Your task to perform on an android device: turn on location history Image 0: 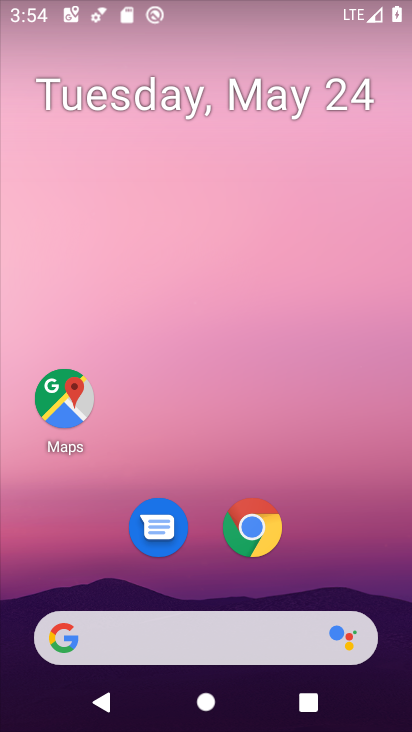
Step 0: click (65, 398)
Your task to perform on an android device: turn on location history Image 1: 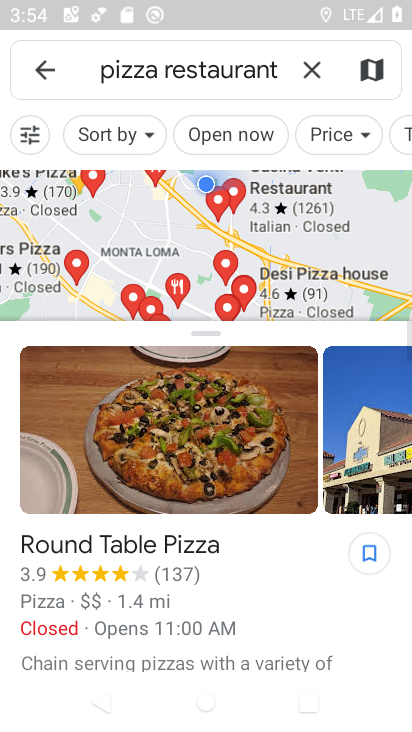
Step 1: click (313, 72)
Your task to perform on an android device: turn on location history Image 2: 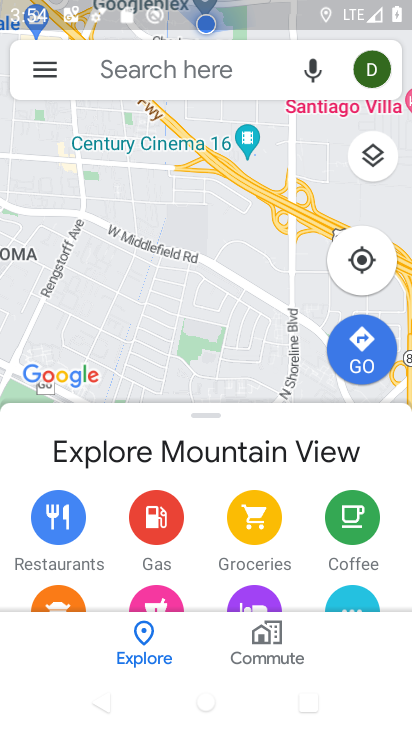
Step 2: click (46, 75)
Your task to perform on an android device: turn on location history Image 3: 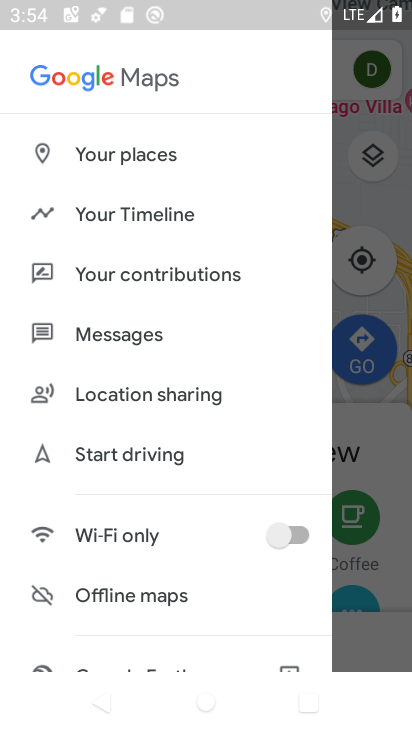
Step 3: click (145, 218)
Your task to perform on an android device: turn on location history Image 4: 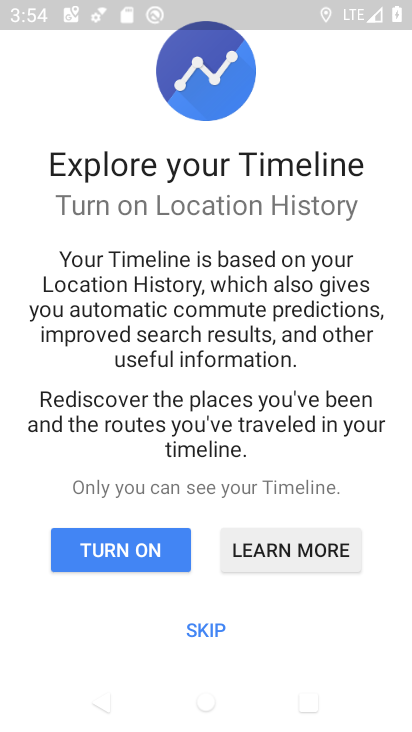
Step 4: click (197, 627)
Your task to perform on an android device: turn on location history Image 5: 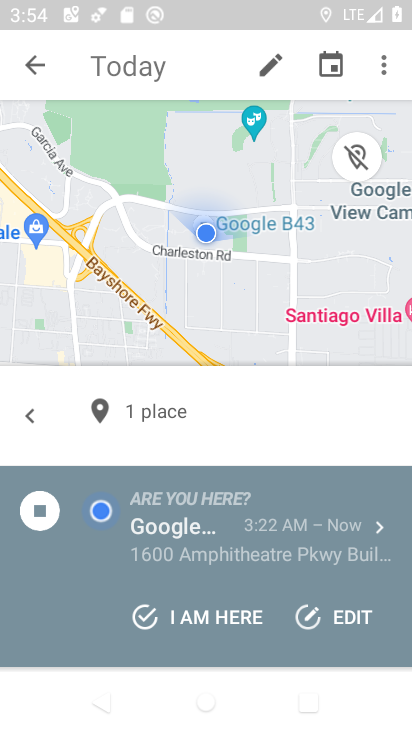
Step 5: click (382, 62)
Your task to perform on an android device: turn on location history Image 6: 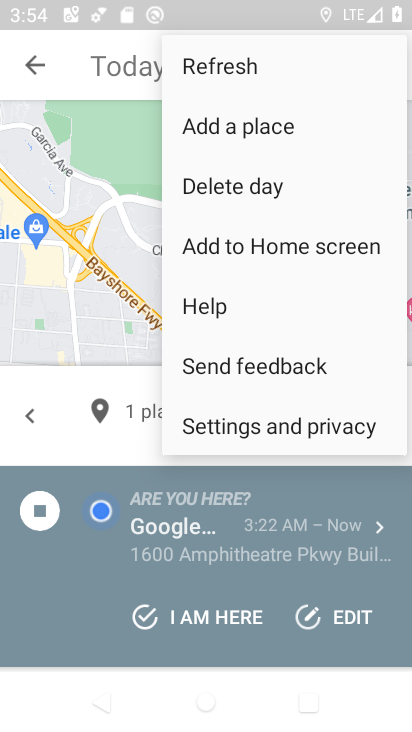
Step 6: click (263, 429)
Your task to perform on an android device: turn on location history Image 7: 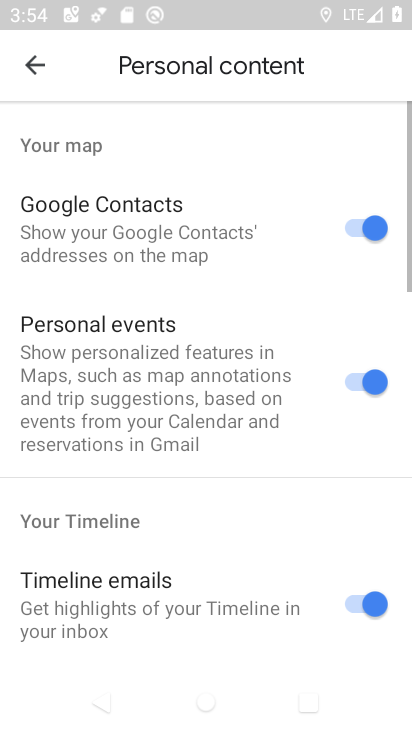
Step 7: drag from (189, 575) to (180, 132)
Your task to perform on an android device: turn on location history Image 8: 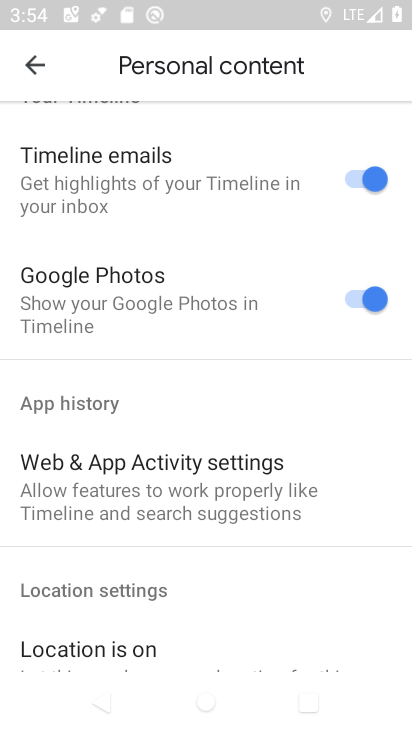
Step 8: drag from (136, 480) to (144, 138)
Your task to perform on an android device: turn on location history Image 9: 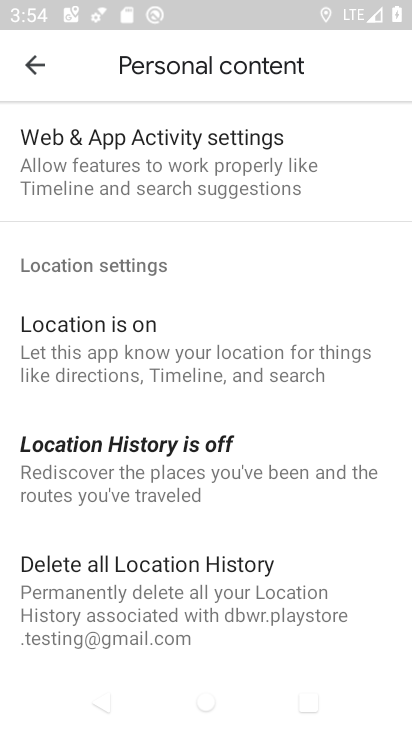
Step 9: click (110, 479)
Your task to perform on an android device: turn on location history Image 10: 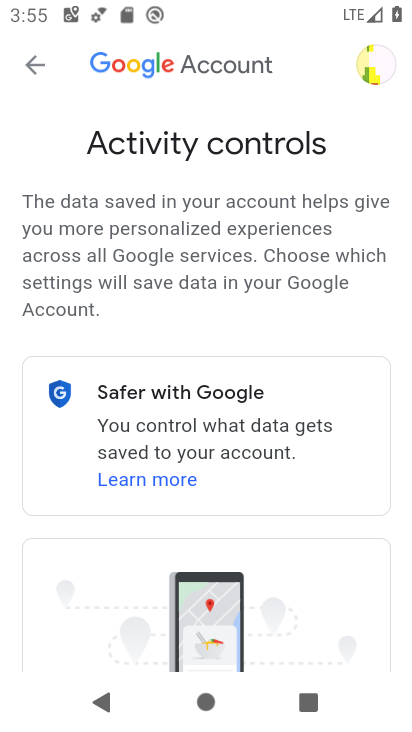
Step 10: task complete